Your task to perform on an android device: Open calendar and show me the first week of next month Image 0: 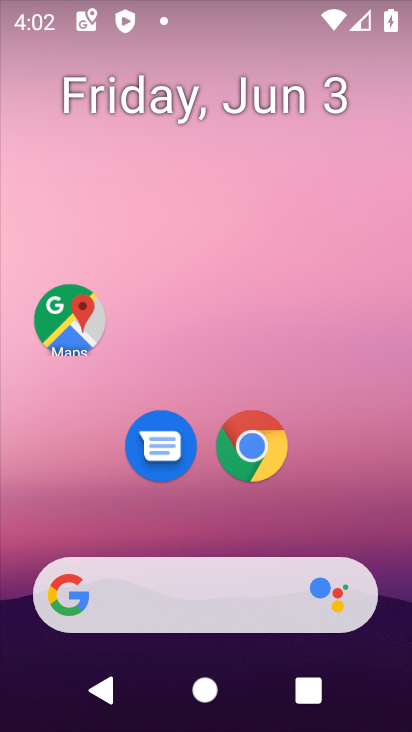
Step 0: task complete